Your task to perform on an android device: Open maps Image 0: 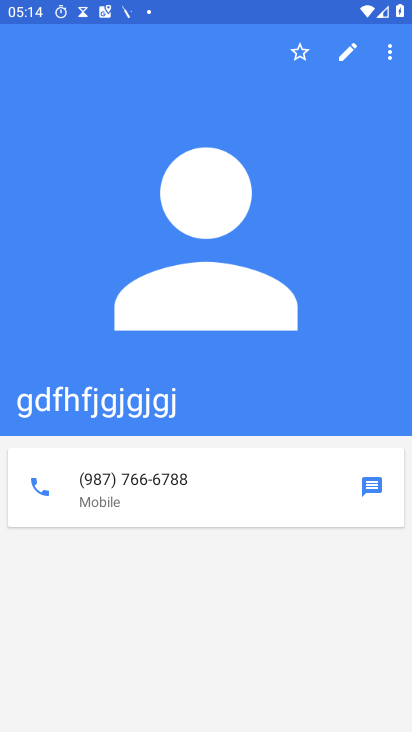
Step 0: press home button
Your task to perform on an android device: Open maps Image 1: 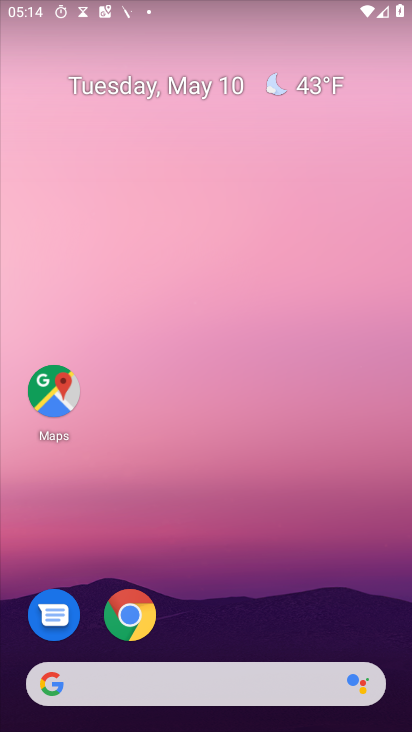
Step 1: drag from (254, 682) to (303, 69)
Your task to perform on an android device: Open maps Image 2: 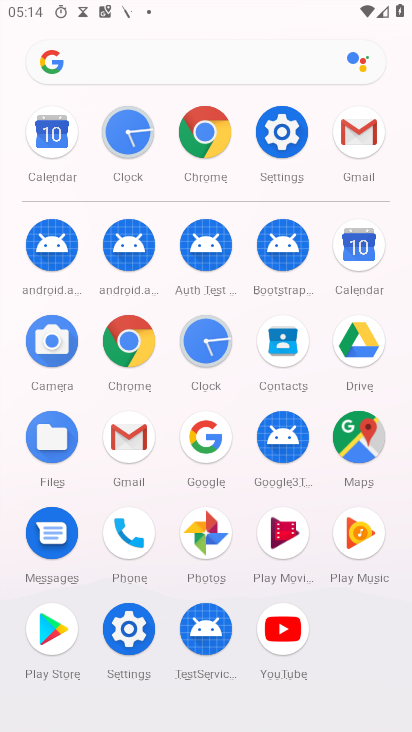
Step 2: click (373, 461)
Your task to perform on an android device: Open maps Image 3: 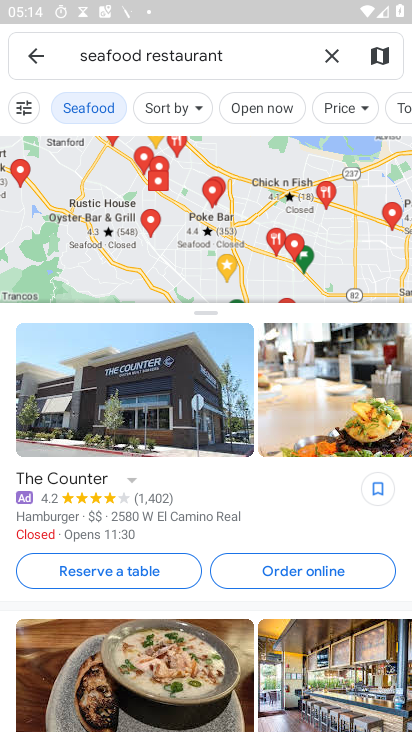
Step 3: task complete